Your task to perform on an android device: change alarm snooze length Image 0: 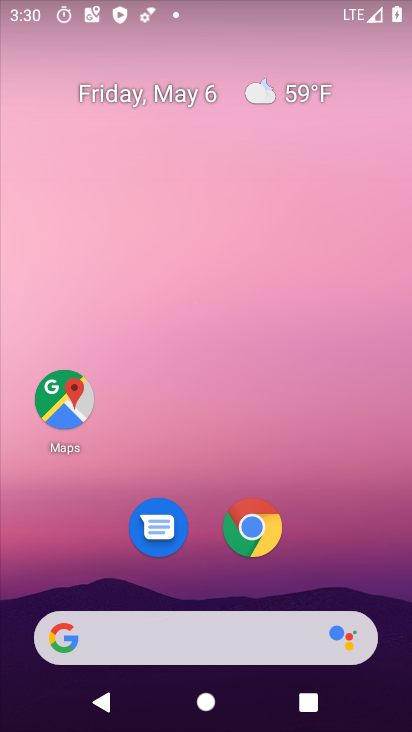
Step 0: drag from (327, 580) to (249, 163)
Your task to perform on an android device: change alarm snooze length Image 1: 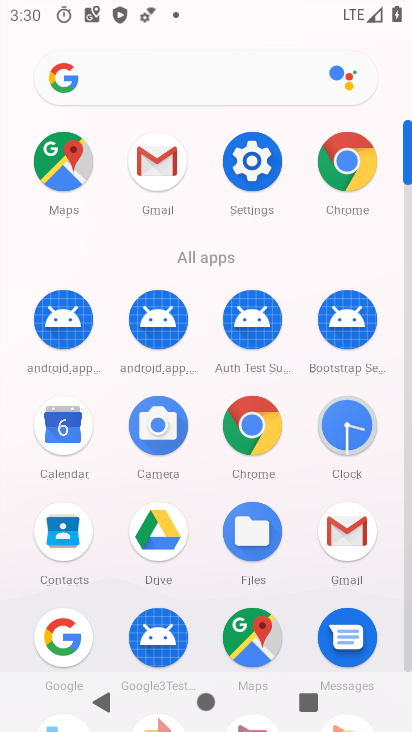
Step 1: click (353, 436)
Your task to perform on an android device: change alarm snooze length Image 2: 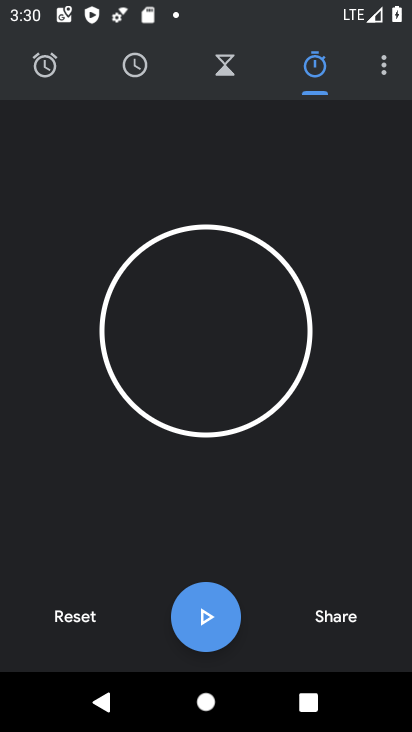
Step 2: click (381, 71)
Your task to perform on an android device: change alarm snooze length Image 3: 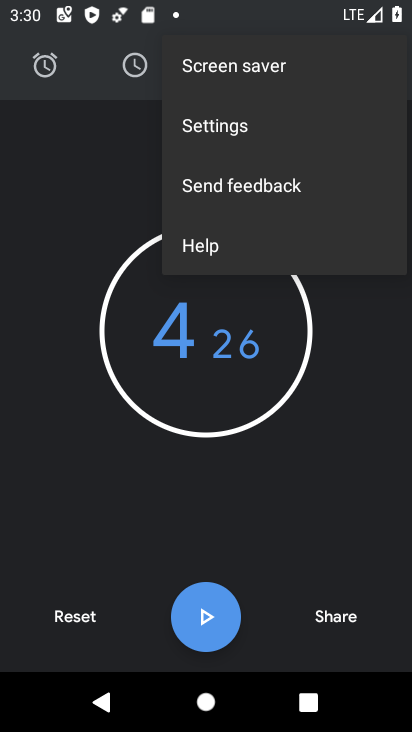
Step 3: click (209, 143)
Your task to perform on an android device: change alarm snooze length Image 4: 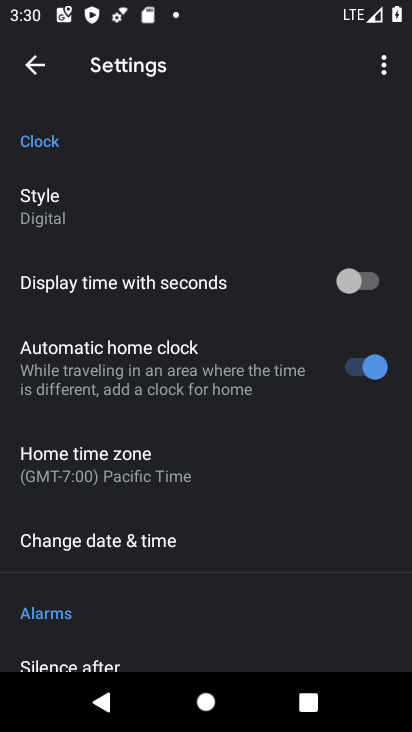
Step 4: drag from (109, 591) to (181, 243)
Your task to perform on an android device: change alarm snooze length Image 5: 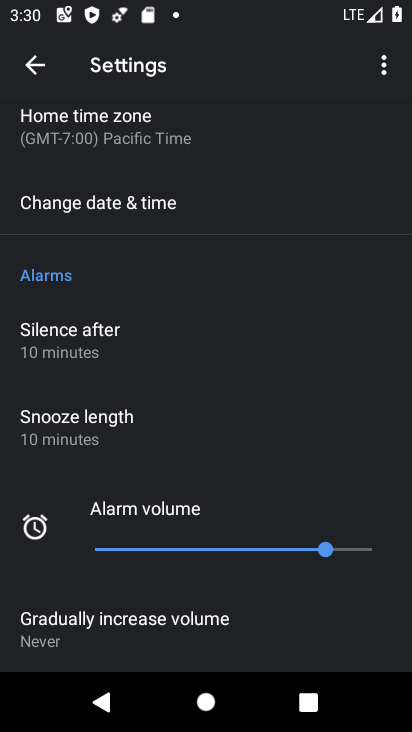
Step 5: drag from (118, 549) to (212, 215)
Your task to perform on an android device: change alarm snooze length Image 6: 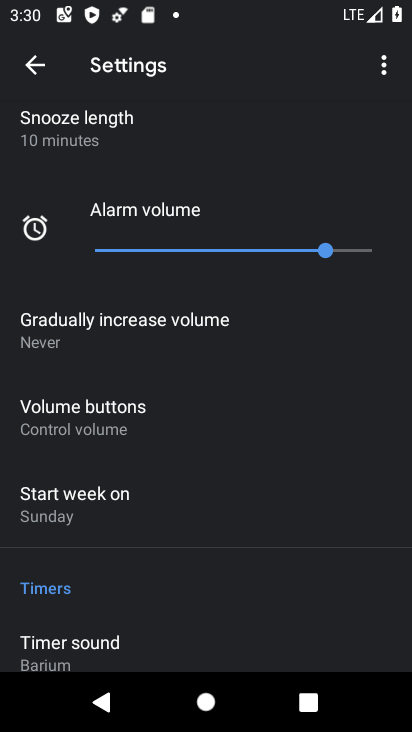
Step 6: drag from (100, 541) to (146, 217)
Your task to perform on an android device: change alarm snooze length Image 7: 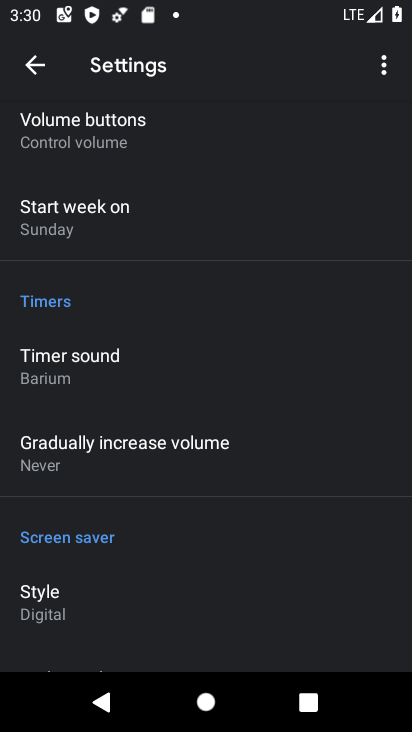
Step 7: drag from (114, 549) to (226, 181)
Your task to perform on an android device: change alarm snooze length Image 8: 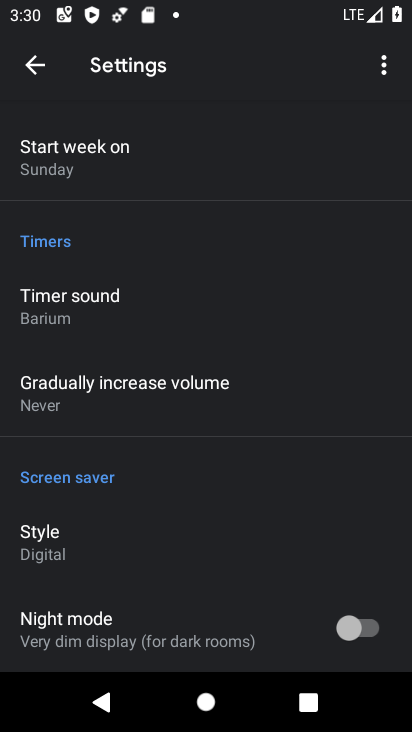
Step 8: drag from (97, 562) to (210, 220)
Your task to perform on an android device: change alarm snooze length Image 9: 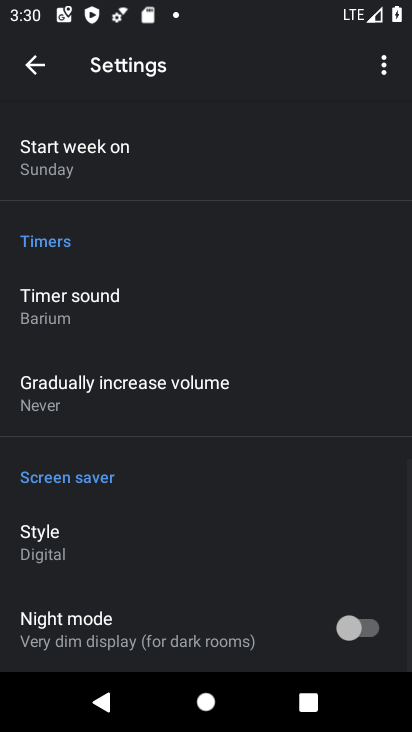
Step 9: drag from (186, 197) to (179, 534)
Your task to perform on an android device: change alarm snooze length Image 10: 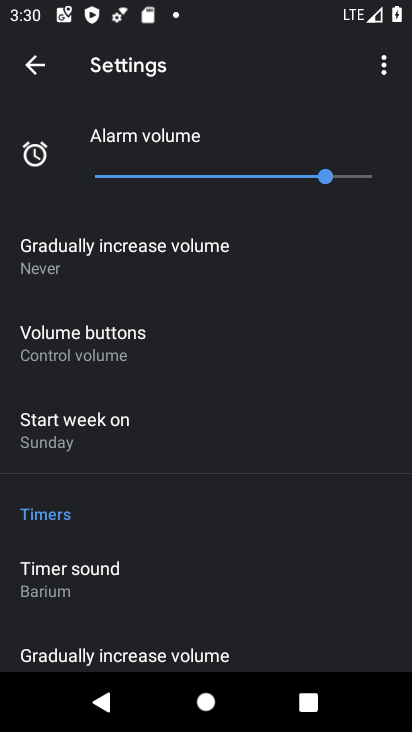
Step 10: drag from (203, 270) to (182, 572)
Your task to perform on an android device: change alarm snooze length Image 11: 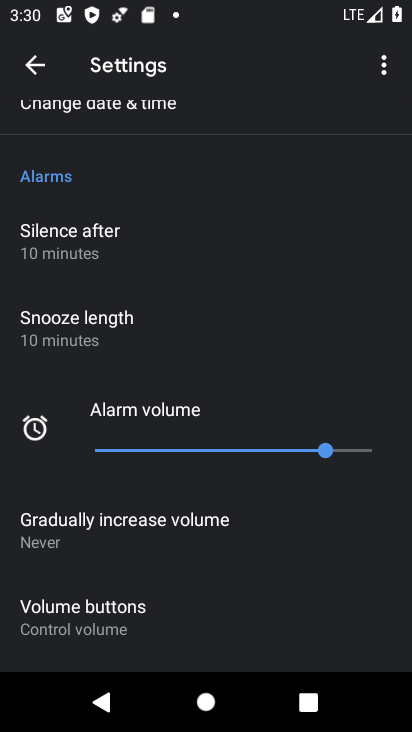
Step 11: click (71, 350)
Your task to perform on an android device: change alarm snooze length Image 12: 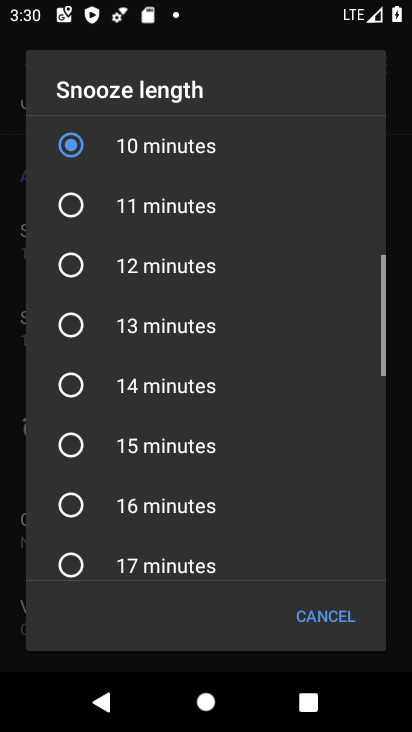
Step 12: click (79, 252)
Your task to perform on an android device: change alarm snooze length Image 13: 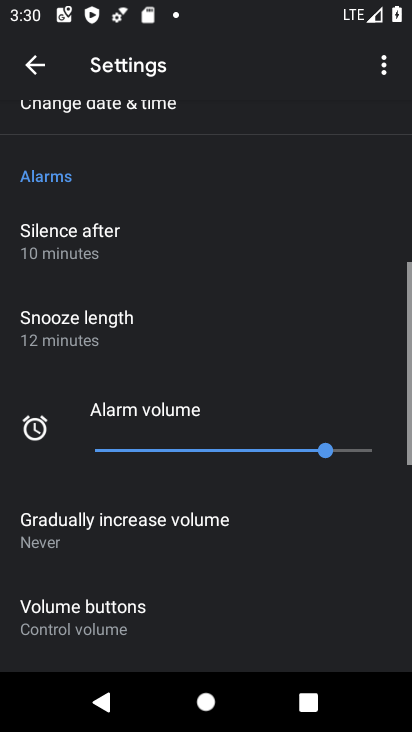
Step 13: task complete